Your task to perform on an android device: Show me recent news Image 0: 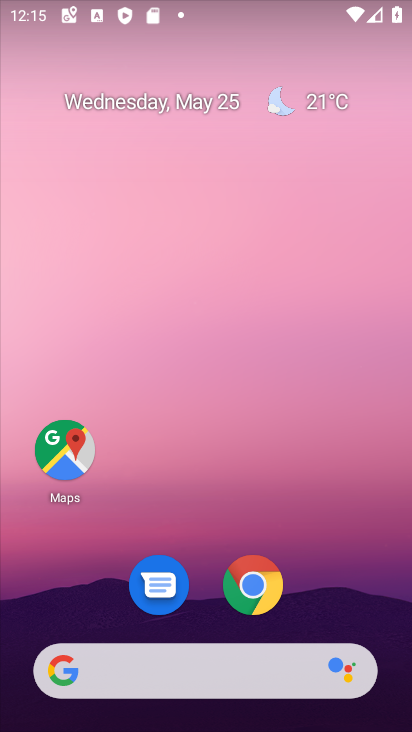
Step 0: click (272, 670)
Your task to perform on an android device: Show me recent news Image 1: 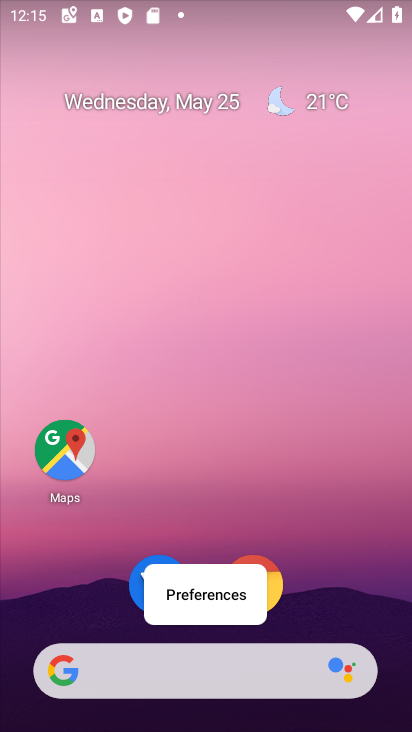
Step 1: click (178, 672)
Your task to perform on an android device: Show me recent news Image 2: 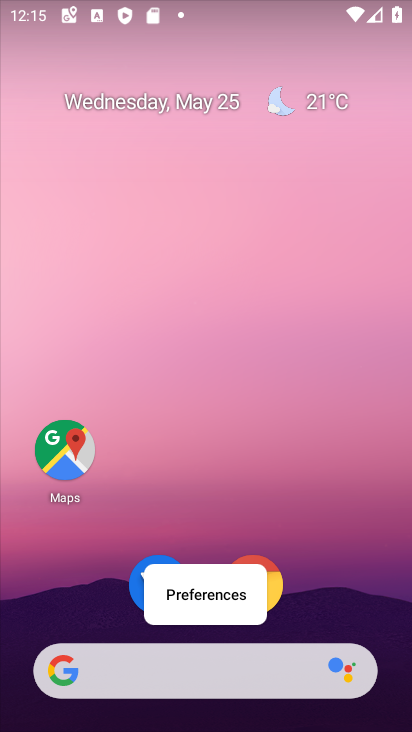
Step 2: click (178, 672)
Your task to perform on an android device: Show me recent news Image 3: 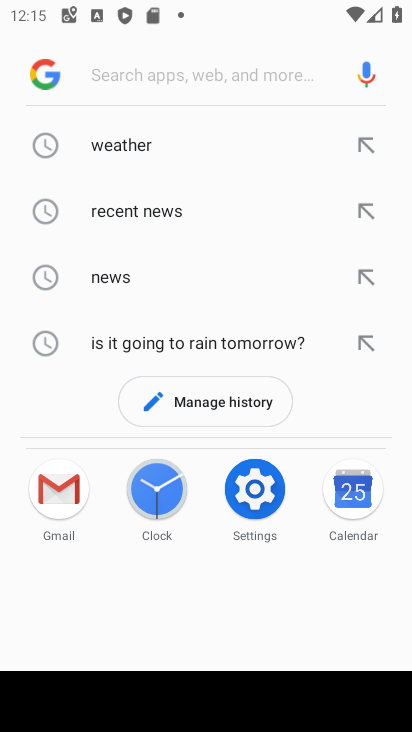
Step 3: click (78, 214)
Your task to perform on an android device: Show me recent news Image 4: 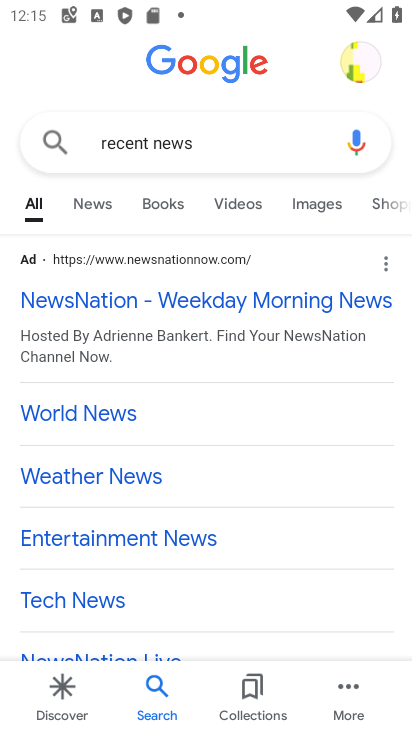
Step 4: click (101, 207)
Your task to perform on an android device: Show me recent news Image 5: 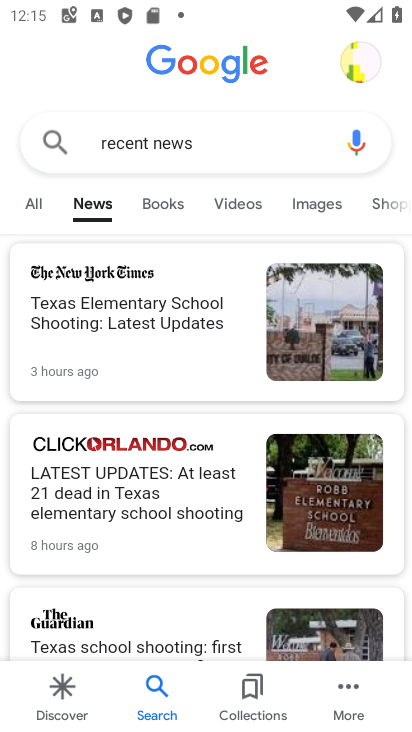
Step 5: task complete